Your task to perform on an android device: See recent photos Image 0: 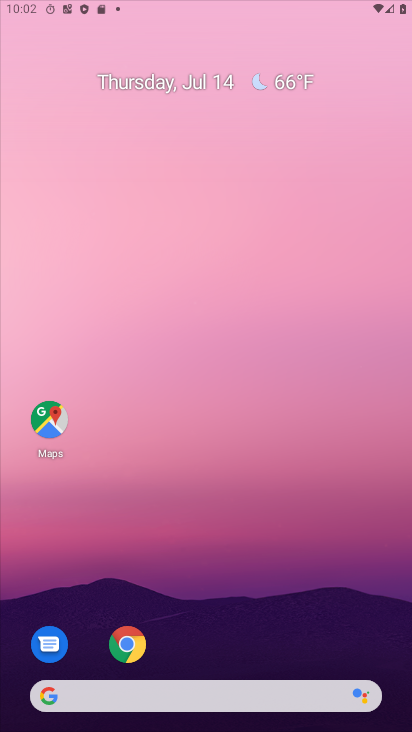
Step 0: drag from (249, 671) to (213, 288)
Your task to perform on an android device: See recent photos Image 1: 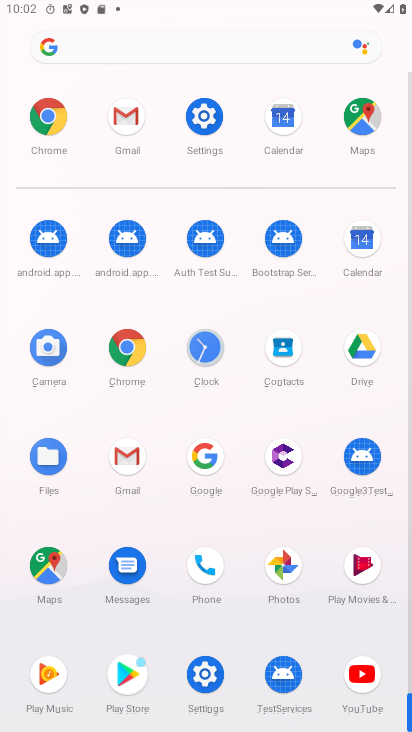
Step 1: click (282, 565)
Your task to perform on an android device: See recent photos Image 2: 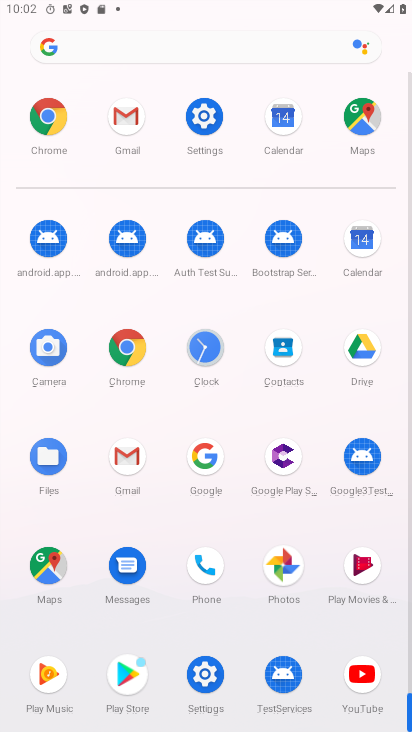
Step 2: click (281, 564)
Your task to perform on an android device: See recent photos Image 3: 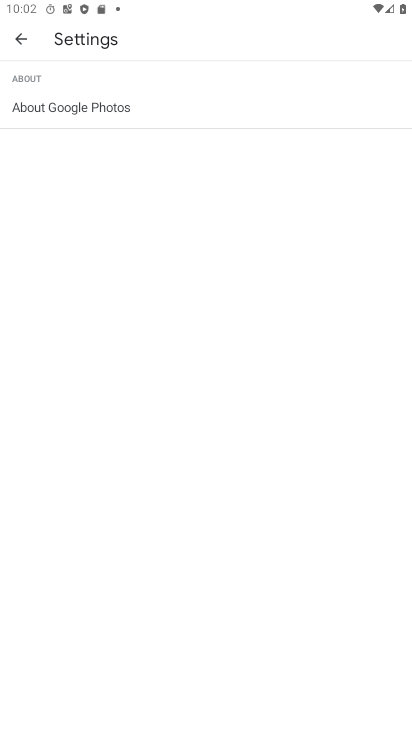
Step 3: click (26, 42)
Your task to perform on an android device: See recent photos Image 4: 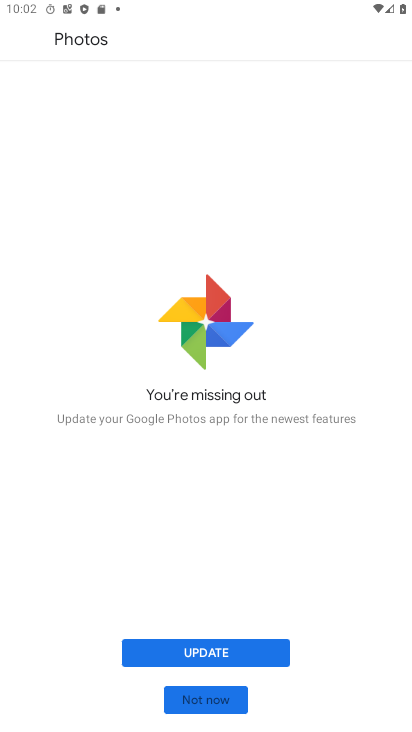
Step 4: click (218, 693)
Your task to perform on an android device: See recent photos Image 5: 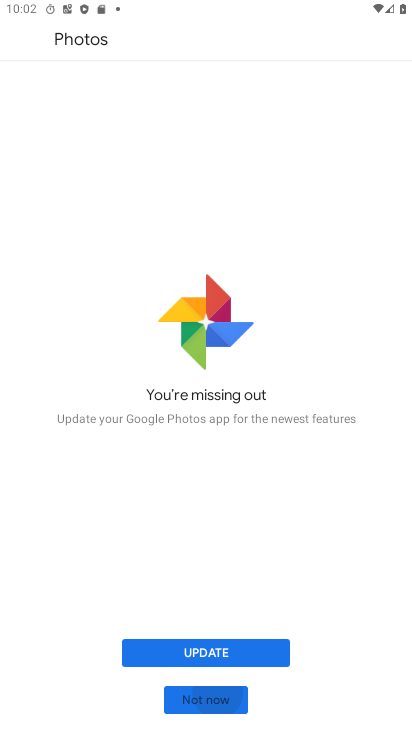
Step 5: click (212, 697)
Your task to perform on an android device: See recent photos Image 6: 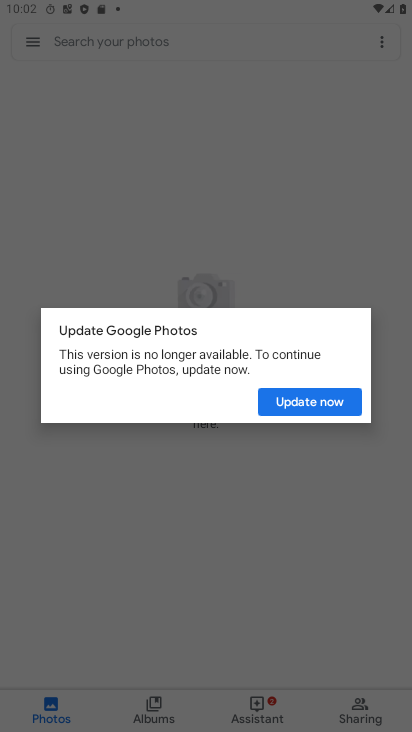
Step 6: task complete